Your task to perform on an android device: turn pop-ups on in chrome Image 0: 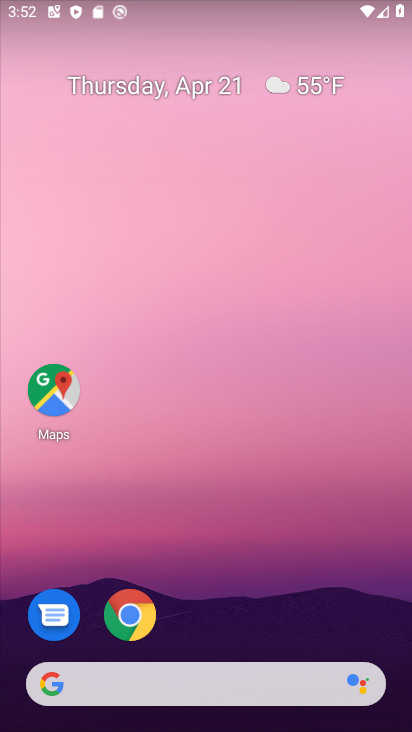
Step 0: drag from (225, 545) to (196, 24)
Your task to perform on an android device: turn pop-ups on in chrome Image 1: 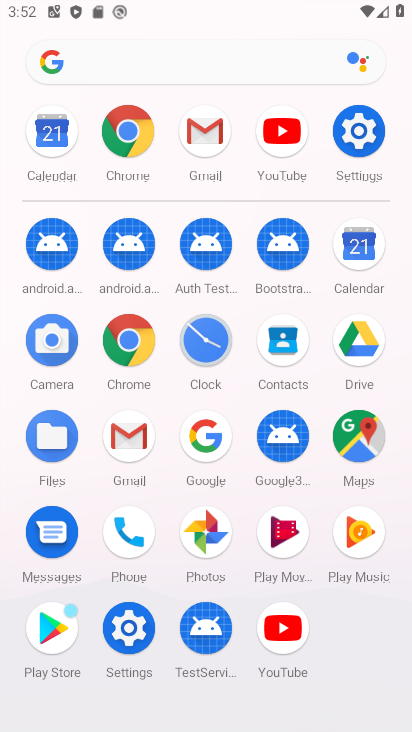
Step 1: click (127, 129)
Your task to perform on an android device: turn pop-ups on in chrome Image 2: 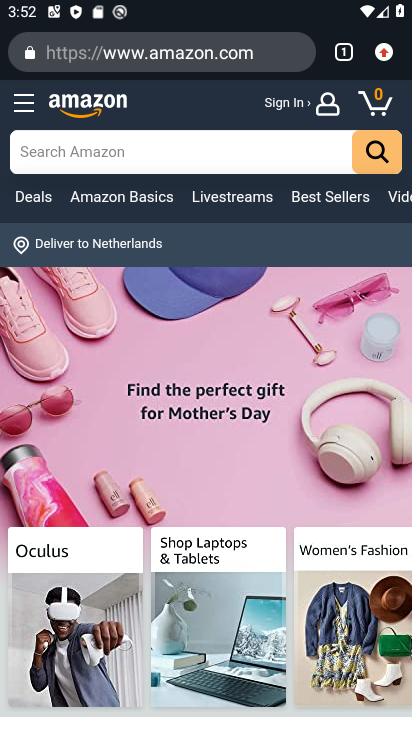
Step 2: drag from (381, 55) to (226, 663)
Your task to perform on an android device: turn pop-ups on in chrome Image 3: 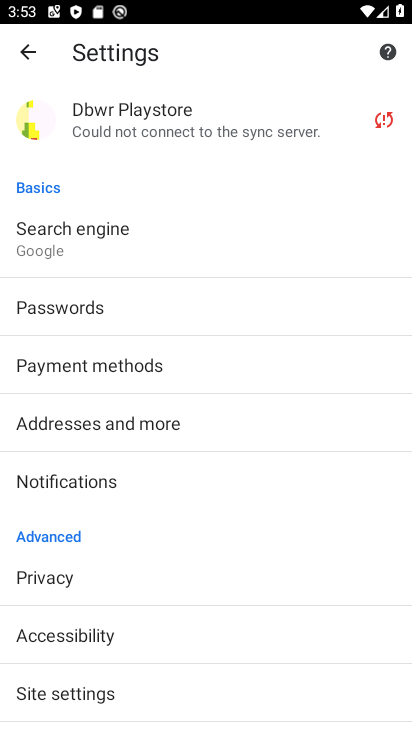
Step 3: drag from (241, 473) to (246, 173)
Your task to perform on an android device: turn pop-ups on in chrome Image 4: 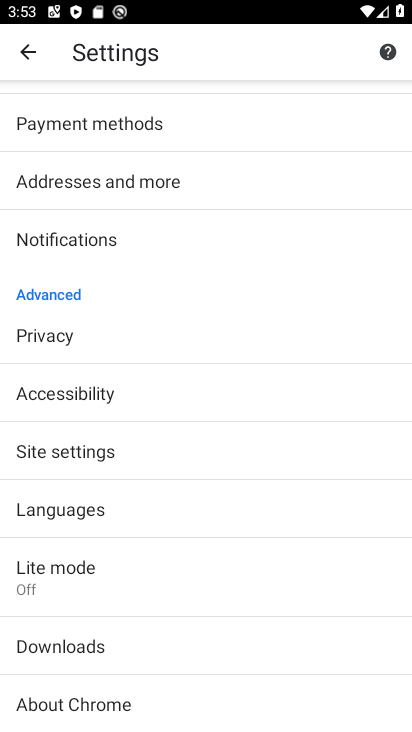
Step 4: click (94, 450)
Your task to perform on an android device: turn pop-ups on in chrome Image 5: 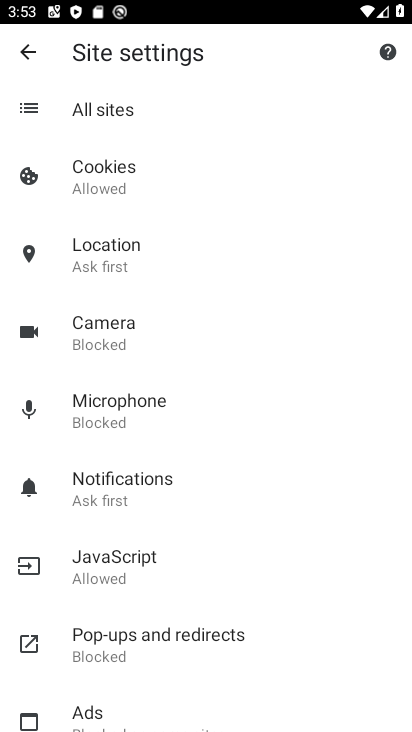
Step 5: drag from (217, 471) to (226, 177)
Your task to perform on an android device: turn pop-ups on in chrome Image 6: 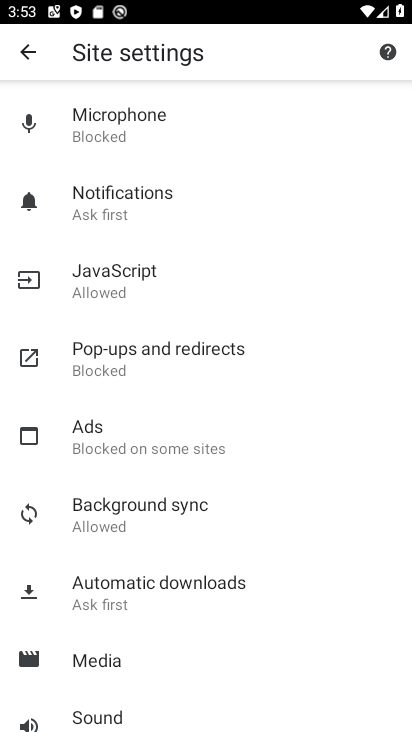
Step 6: click (156, 354)
Your task to perform on an android device: turn pop-ups on in chrome Image 7: 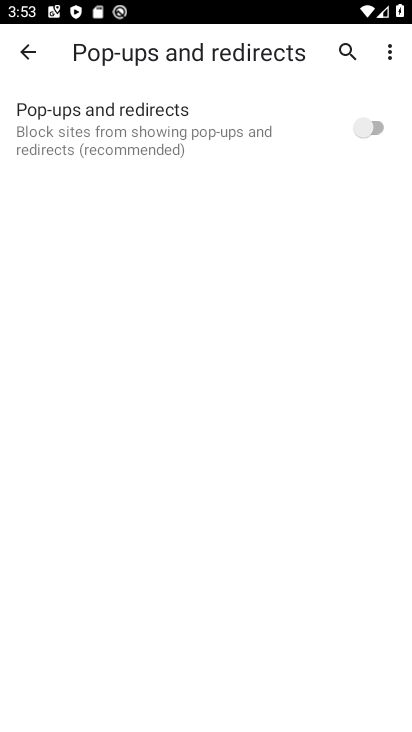
Step 7: click (361, 125)
Your task to perform on an android device: turn pop-ups on in chrome Image 8: 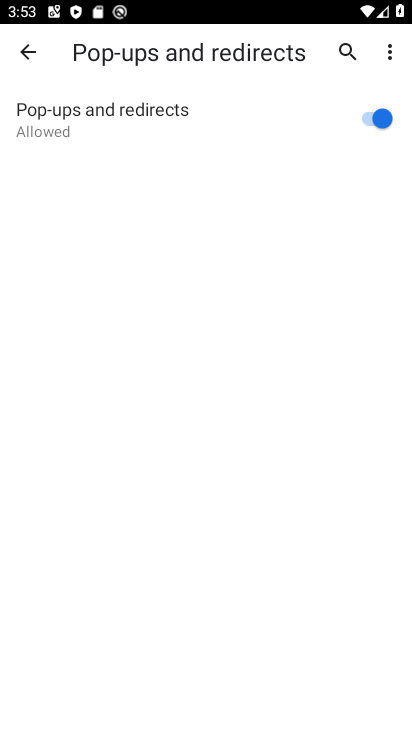
Step 8: task complete